Your task to perform on an android device: turn on translation in the chrome app Image 0: 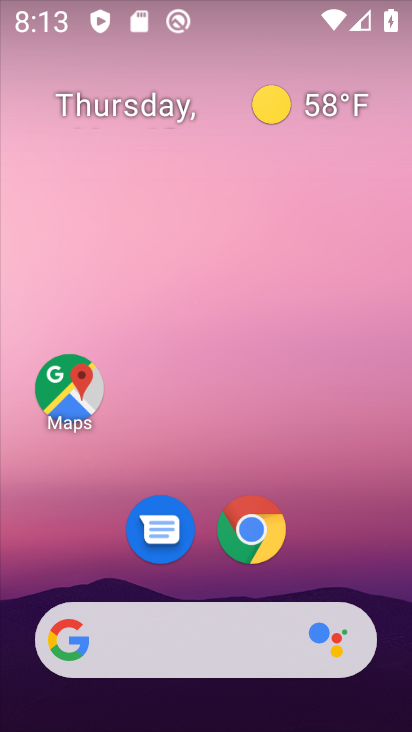
Step 0: click (247, 531)
Your task to perform on an android device: turn on translation in the chrome app Image 1: 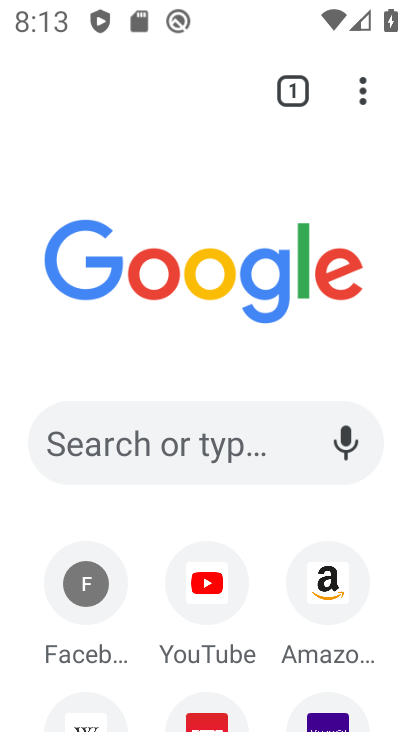
Step 1: click (355, 100)
Your task to perform on an android device: turn on translation in the chrome app Image 2: 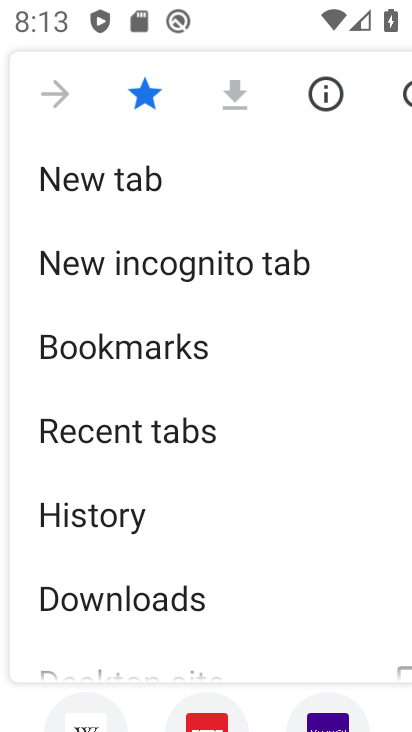
Step 2: drag from (218, 557) to (257, 128)
Your task to perform on an android device: turn on translation in the chrome app Image 3: 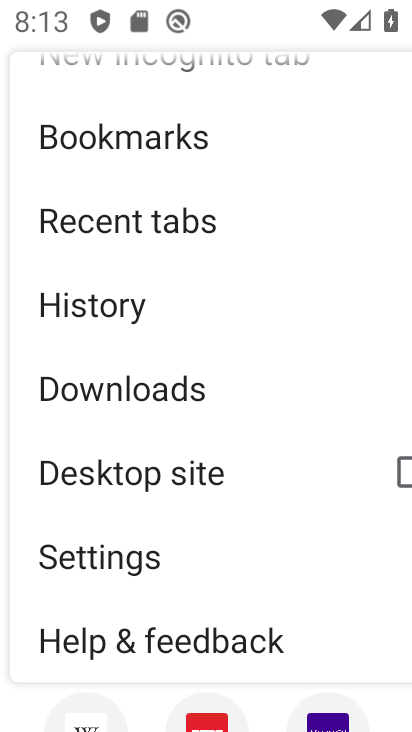
Step 3: click (135, 557)
Your task to perform on an android device: turn on translation in the chrome app Image 4: 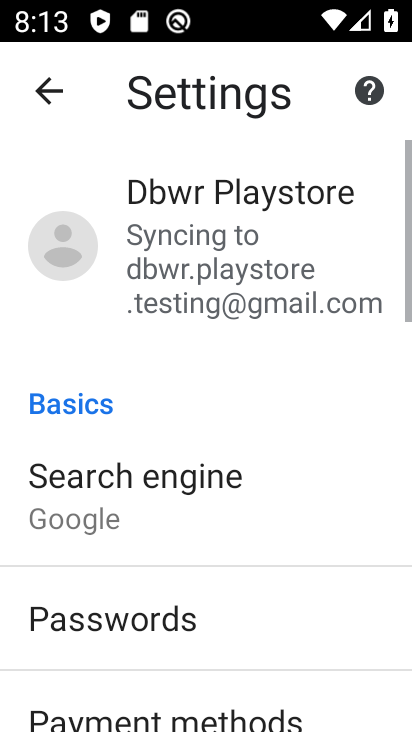
Step 4: drag from (290, 493) to (319, 132)
Your task to perform on an android device: turn on translation in the chrome app Image 5: 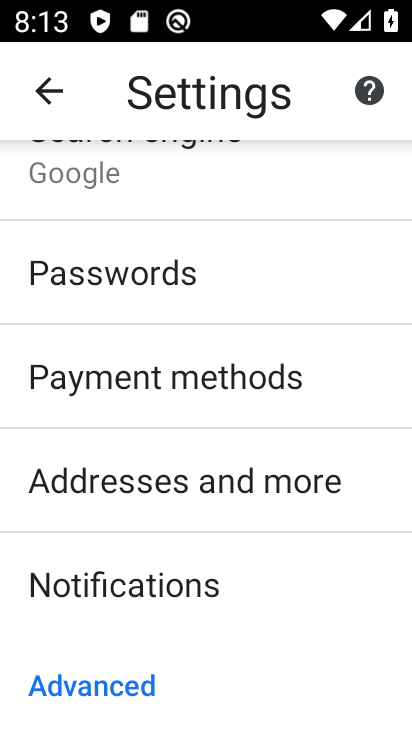
Step 5: drag from (203, 632) to (237, 237)
Your task to perform on an android device: turn on translation in the chrome app Image 6: 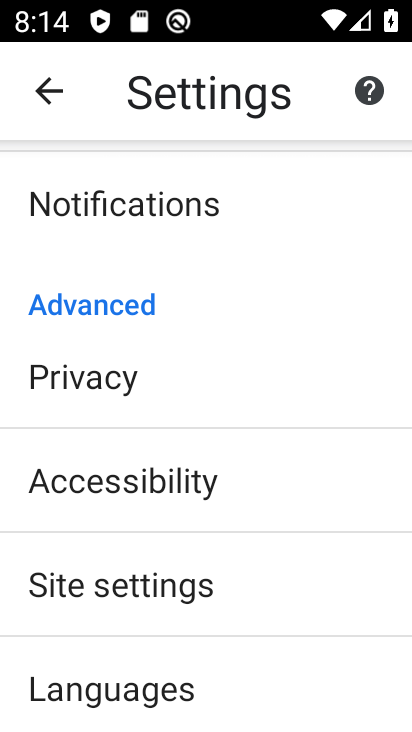
Step 6: click (89, 692)
Your task to perform on an android device: turn on translation in the chrome app Image 7: 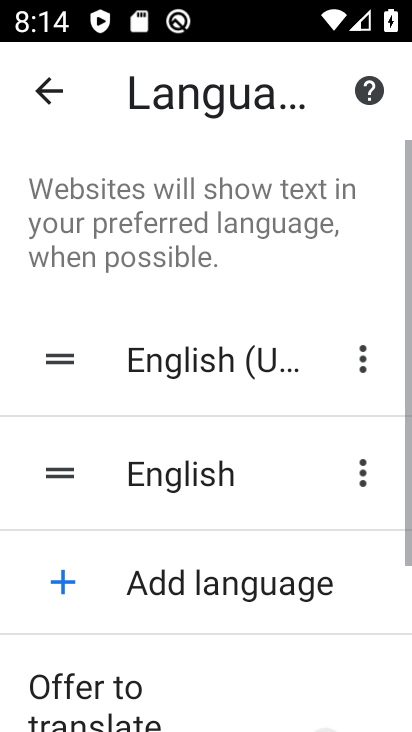
Step 7: drag from (181, 650) to (252, 237)
Your task to perform on an android device: turn on translation in the chrome app Image 8: 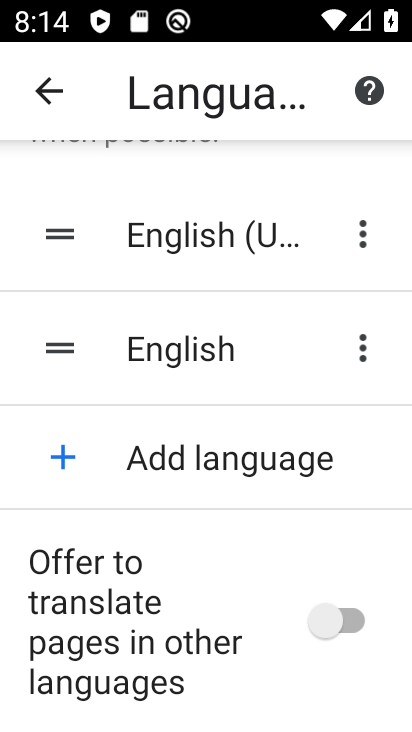
Step 8: click (335, 630)
Your task to perform on an android device: turn on translation in the chrome app Image 9: 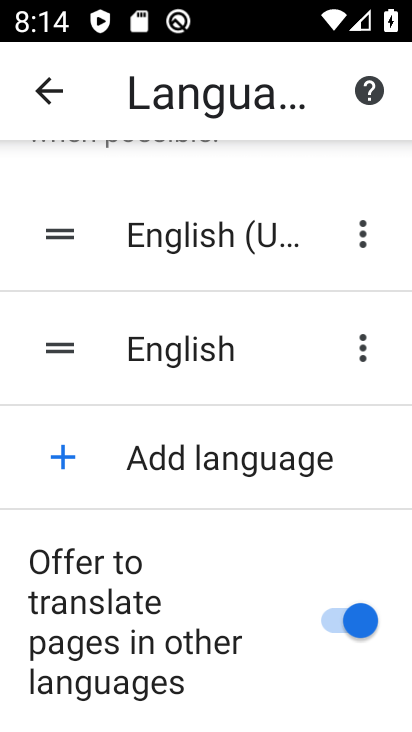
Step 9: task complete